Your task to perform on an android device: change the clock style Image 0: 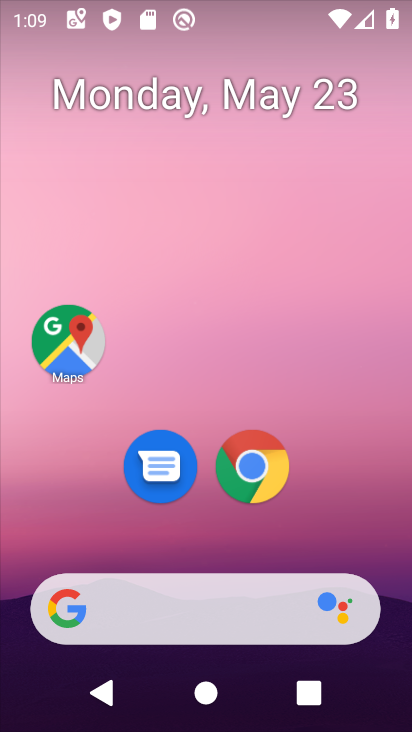
Step 0: drag from (340, 533) to (212, 98)
Your task to perform on an android device: change the clock style Image 1: 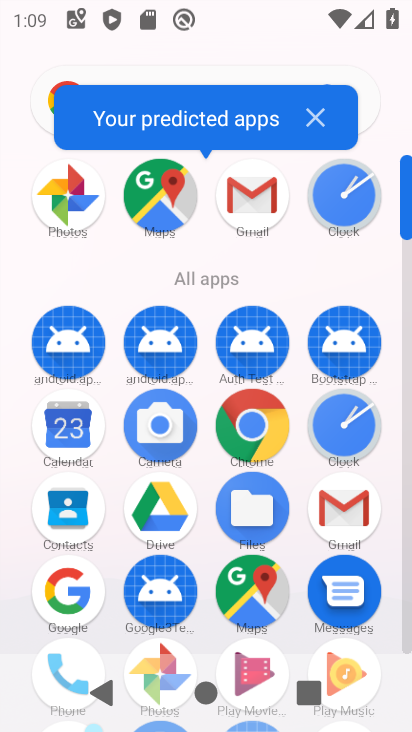
Step 1: click (345, 196)
Your task to perform on an android device: change the clock style Image 2: 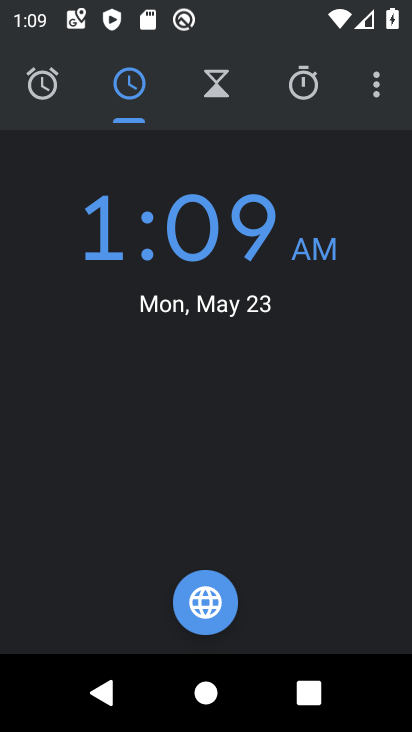
Step 2: click (377, 86)
Your task to perform on an android device: change the clock style Image 3: 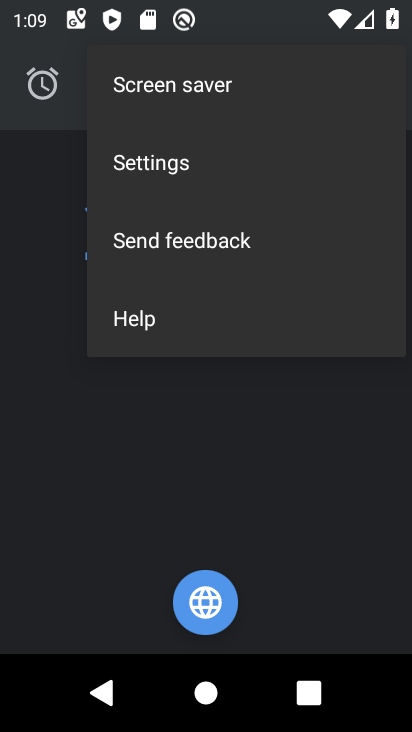
Step 3: click (146, 178)
Your task to perform on an android device: change the clock style Image 4: 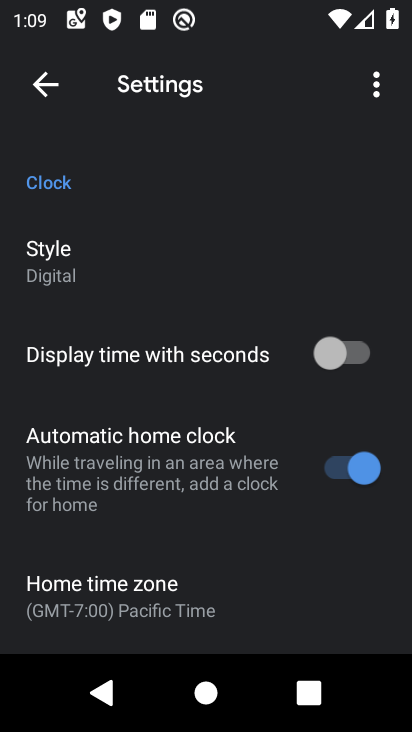
Step 4: click (87, 260)
Your task to perform on an android device: change the clock style Image 5: 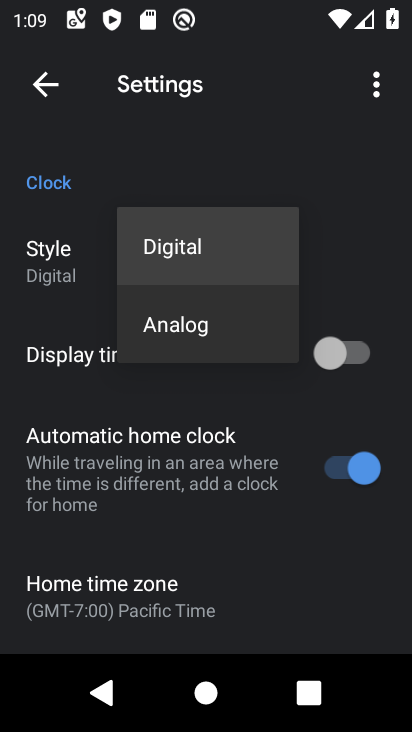
Step 5: click (214, 316)
Your task to perform on an android device: change the clock style Image 6: 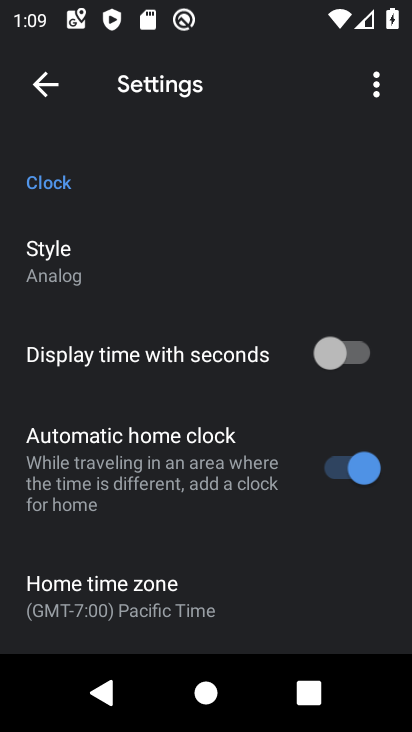
Step 6: task complete